Your task to perform on an android device: change the clock style Image 0: 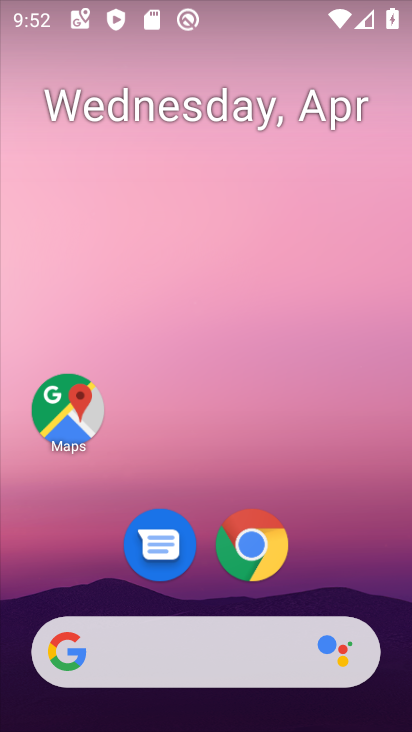
Step 0: drag from (377, 599) to (354, 6)
Your task to perform on an android device: change the clock style Image 1: 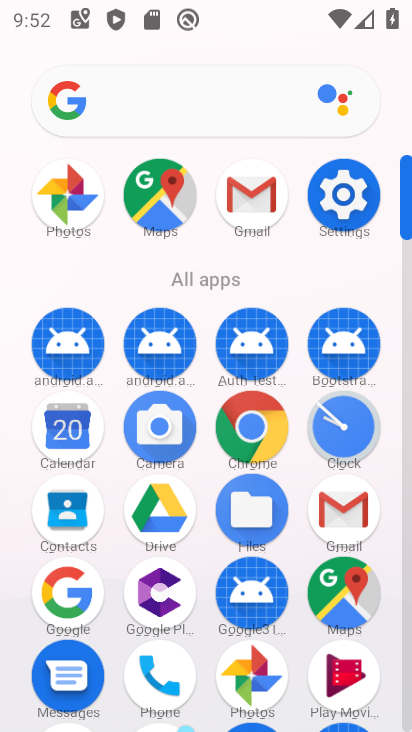
Step 1: click (328, 419)
Your task to perform on an android device: change the clock style Image 2: 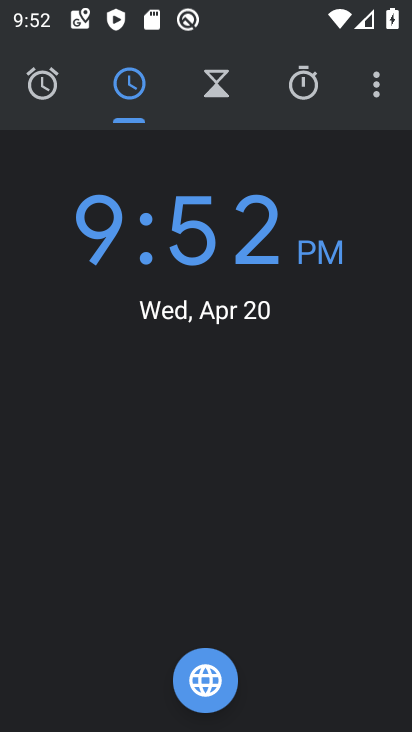
Step 2: click (377, 90)
Your task to perform on an android device: change the clock style Image 3: 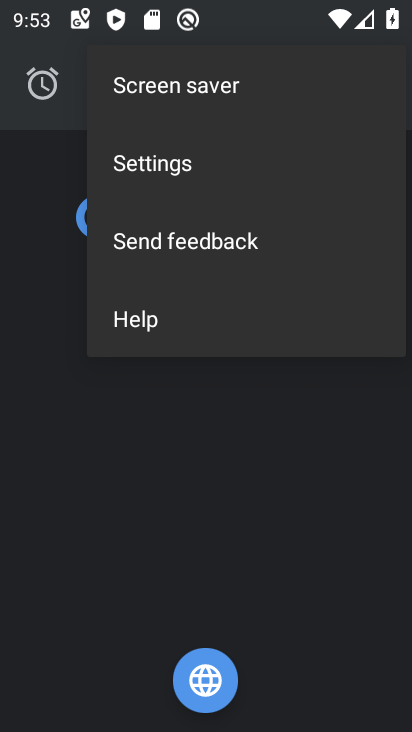
Step 3: click (162, 170)
Your task to perform on an android device: change the clock style Image 4: 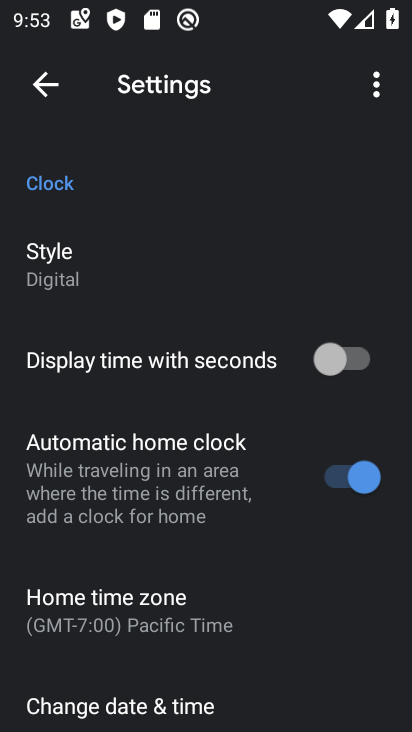
Step 4: click (79, 278)
Your task to perform on an android device: change the clock style Image 5: 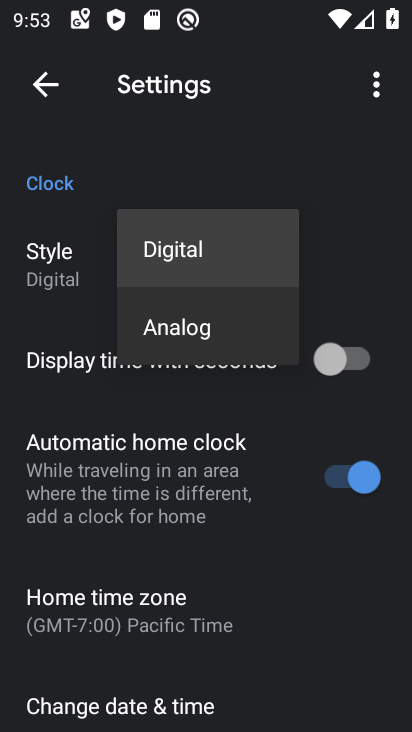
Step 5: click (164, 333)
Your task to perform on an android device: change the clock style Image 6: 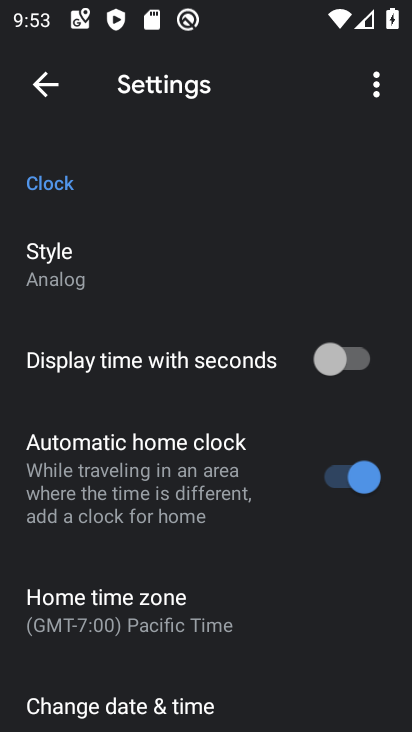
Step 6: task complete